Your task to perform on an android device: Search for seafood restaurants on Google Maps Image 0: 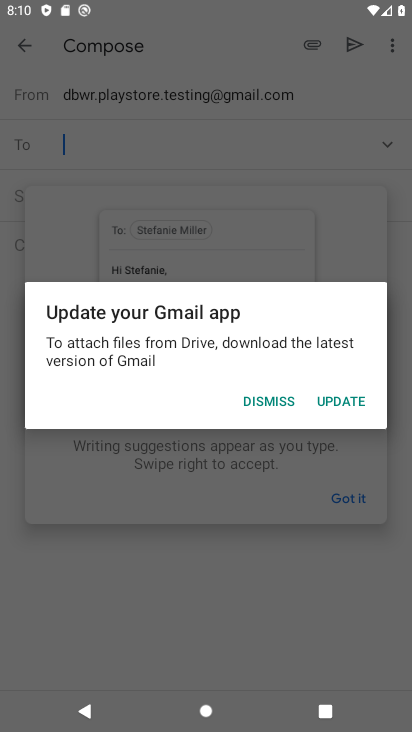
Step 0: press home button
Your task to perform on an android device: Search for seafood restaurants on Google Maps Image 1: 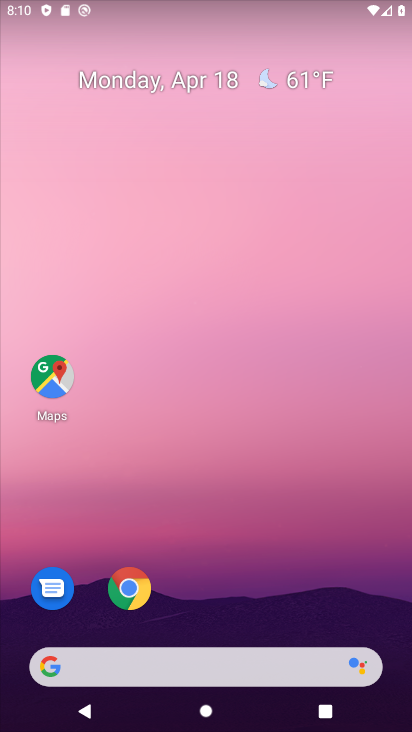
Step 1: click (49, 373)
Your task to perform on an android device: Search for seafood restaurants on Google Maps Image 2: 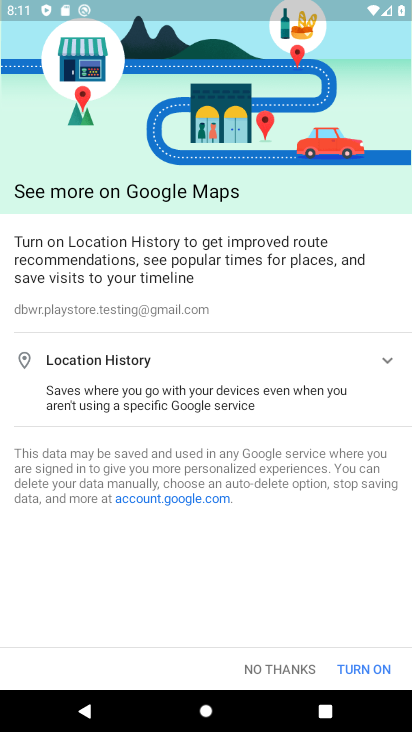
Step 2: click (283, 666)
Your task to perform on an android device: Search for seafood restaurants on Google Maps Image 3: 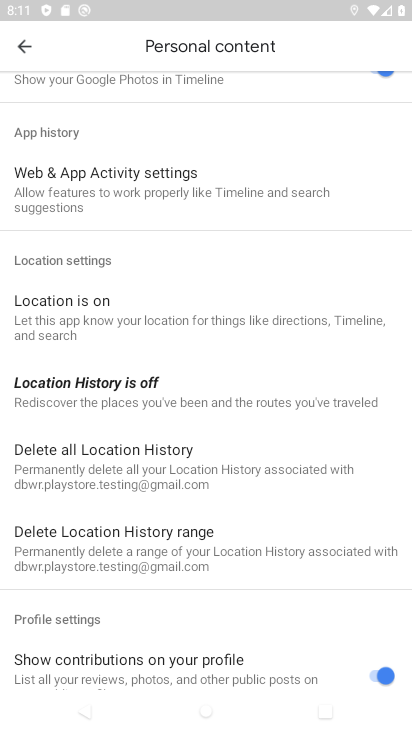
Step 3: press back button
Your task to perform on an android device: Search for seafood restaurants on Google Maps Image 4: 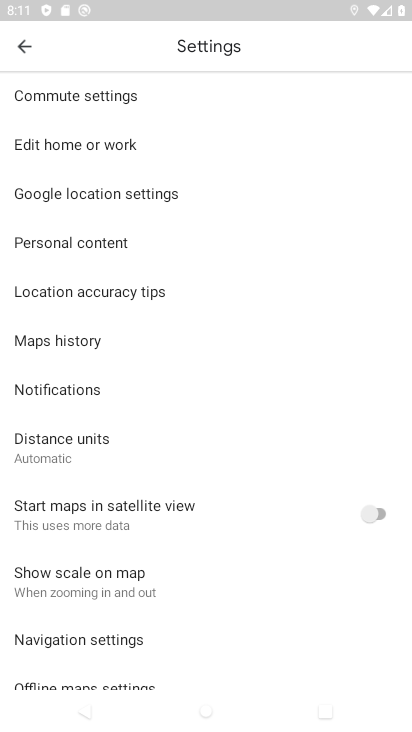
Step 4: press back button
Your task to perform on an android device: Search for seafood restaurants on Google Maps Image 5: 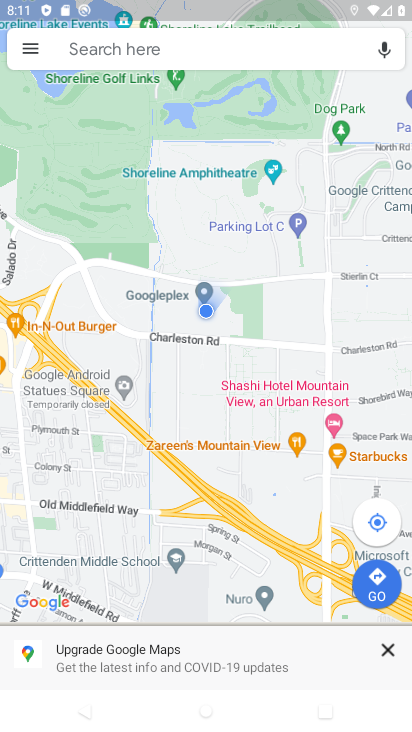
Step 5: click (101, 42)
Your task to perform on an android device: Search for seafood restaurants on Google Maps Image 6: 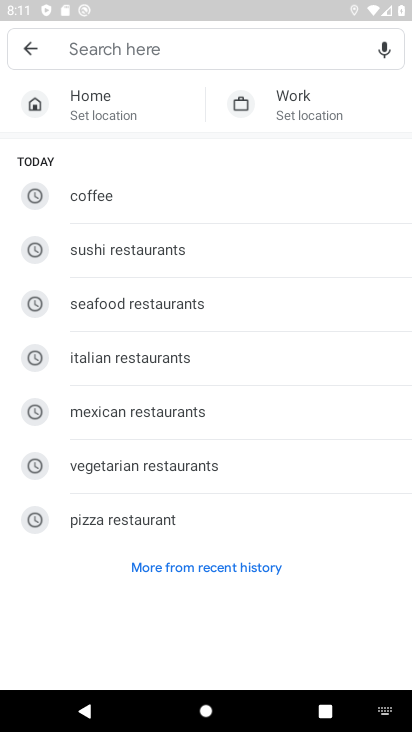
Step 6: type "seafood restaurants"
Your task to perform on an android device: Search for seafood restaurants on Google Maps Image 7: 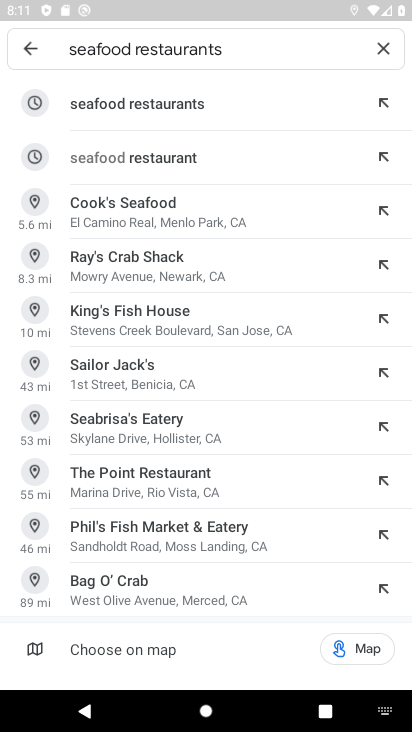
Step 7: click (108, 101)
Your task to perform on an android device: Search for seafood restaurants on Google Maps Image 8: 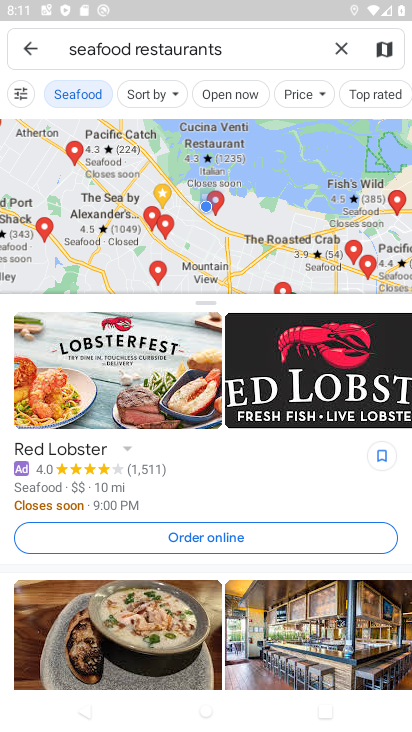
Step 8: task complete